Your task to perform on an android device: turn on the 24-hour format for clock Image 0: 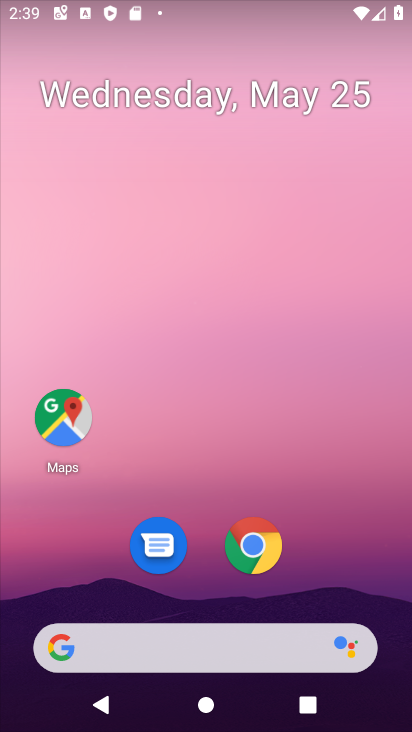
Step 0: drag from (338, 597) to (248, 9)
Your task to perform on an android device: turn on the 24-hour format for clock Image 1: 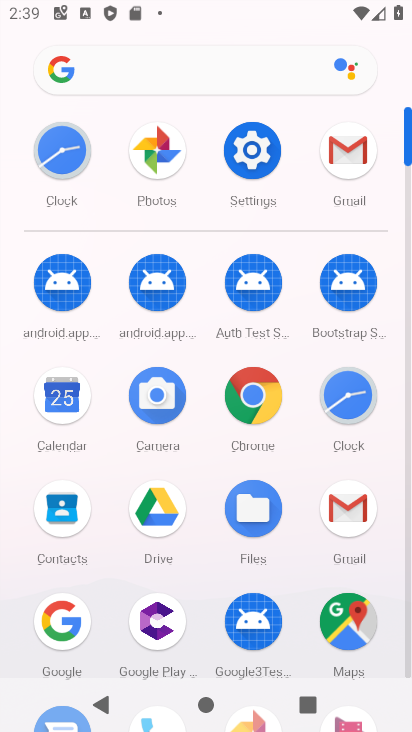
Step 1: click (63, 180)
Your task to perform on an android device: turn on the 24-hour format for clock Image 2: 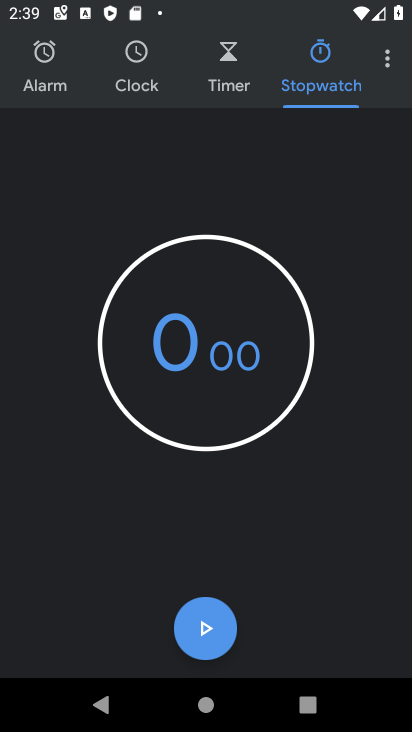
Step 2: click (380, 64)
Your task to perform on an android device: turn on the 24-hour format for clock Image 3: 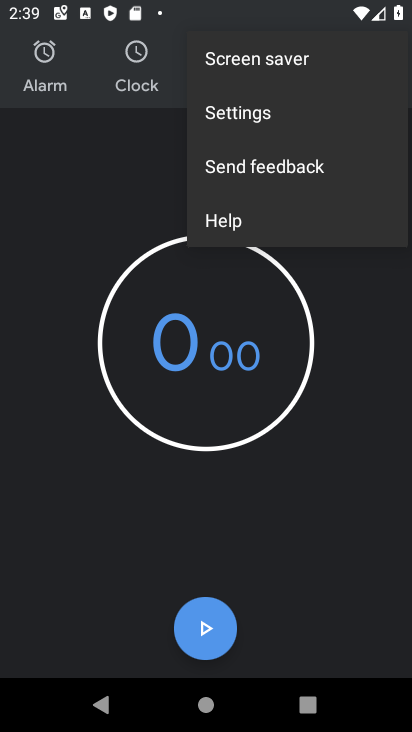
Step 3: click (277, 126)
Your task to perform on an android device: turn on the 24-hour format for clock Image 4: 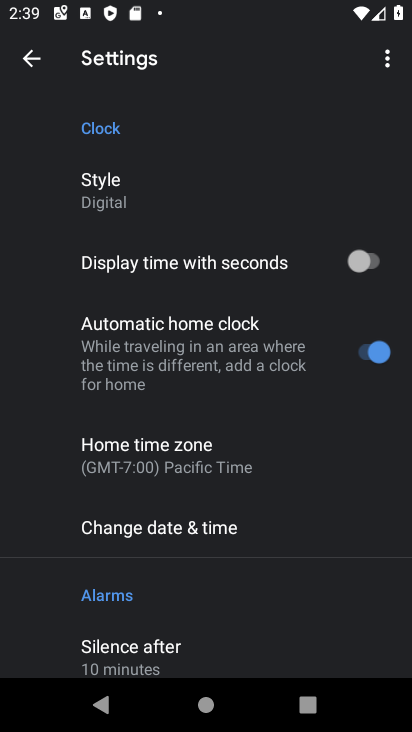
Step 4: click (271, 517)
Your task to perform on an android device: turn on the 24-hour format for clock Image 5: 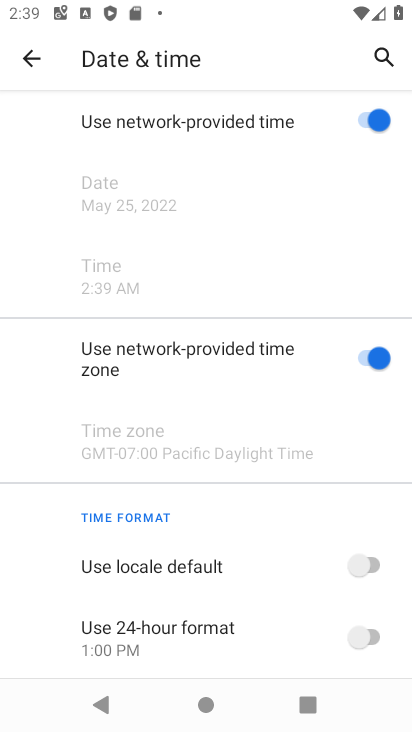
Step 5: drag from (239, 598) to (234, 243)
Your task to perform on an android device: turn on the 24-hour format for clock Image 6: 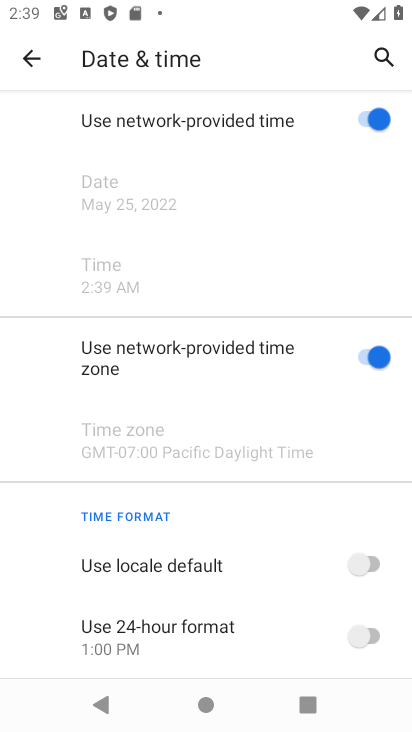
Step 6: click (311, 637)
Your task to perform on an android device: turn on the 24-hour format for clock Image 7: 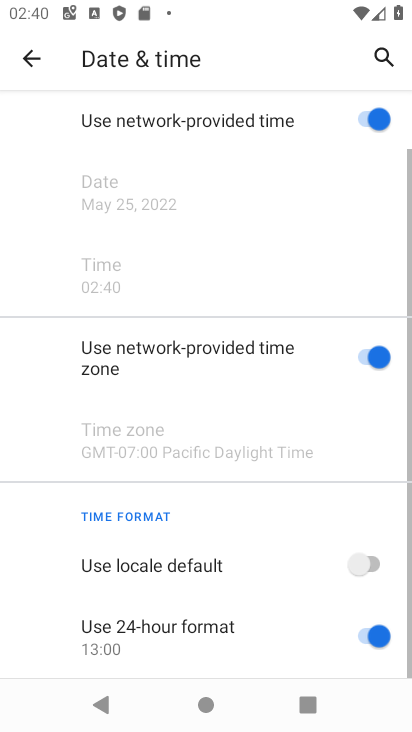
Step 7: task complete